Your task to perform on an android device: visit the assistant section in the google photos Image 0: 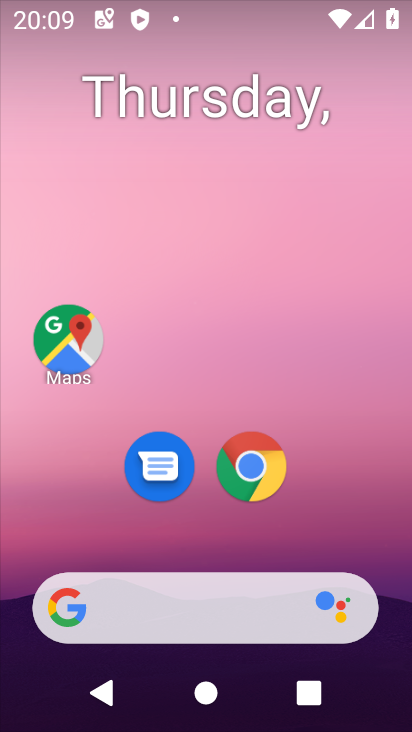
Step 0: drag from (294, 532) to (324, 175)
Your task to perform on an android device: visit the assistant section in the google photos Image 1: 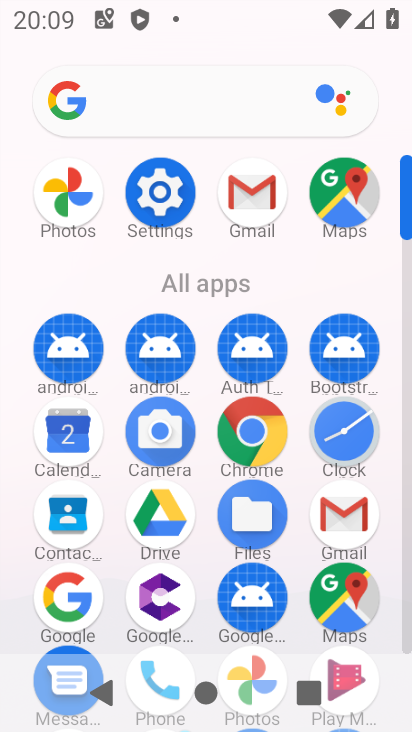
Step 1: click (79, 202)
Your task to perform on an android device: visit the assistant section in the google photos Image 2: 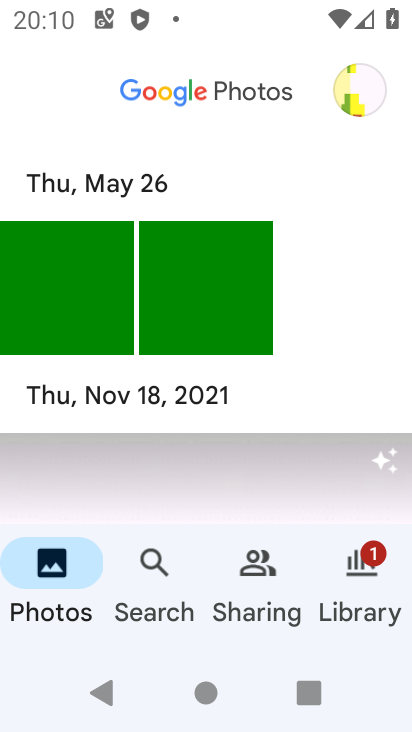
Step 2: click (168, 554)
Your task to perform on an android device: visit the assistant section in the google photos Image 3: 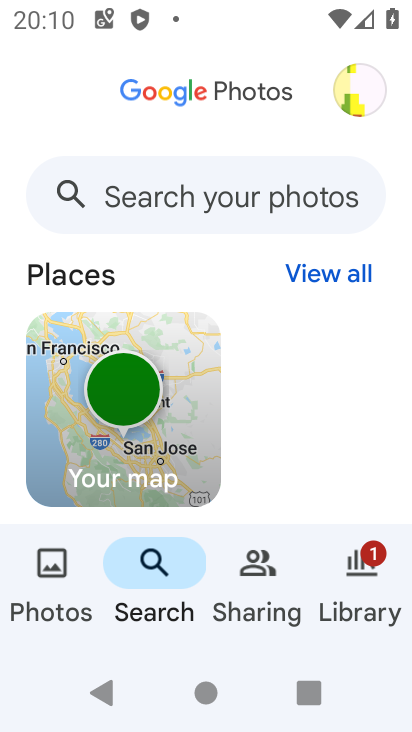
Step 3: click (261, 578)
Your task to perform on an android device: visit the assistant section in the google photos Image 4: 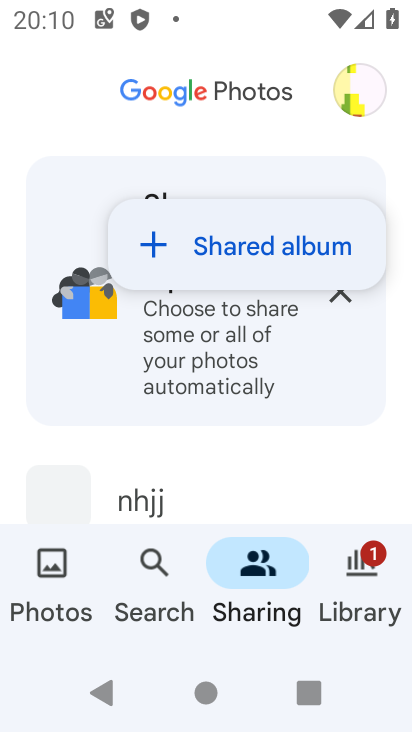
Step 4: task complete